Your task to perform on an android device: set the timer Image 0: 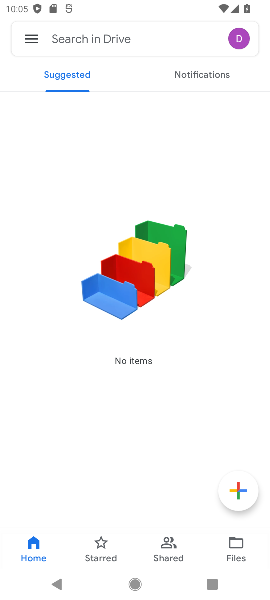
Step 0: press home button
Your task to perform on an android device: set the timer Image 1: 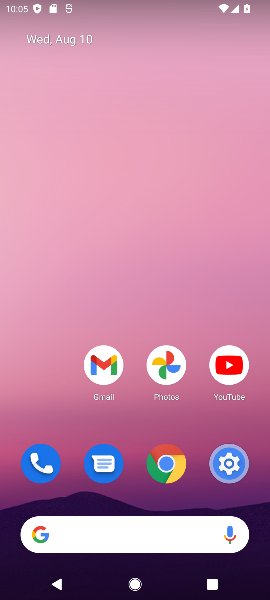
Step 1: drag from (24, 567) to (262, 88)
Your task to perform on an android device: set the timer Image 2: 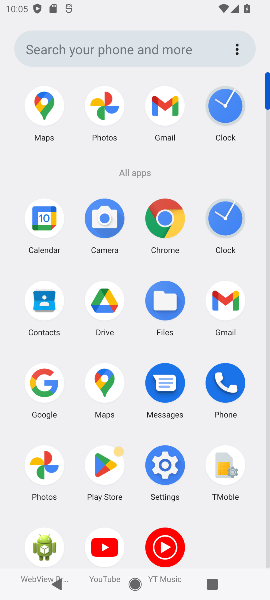
Step 2: click (220, 222)
Your task to perform on an android device: set the timer Image 3: 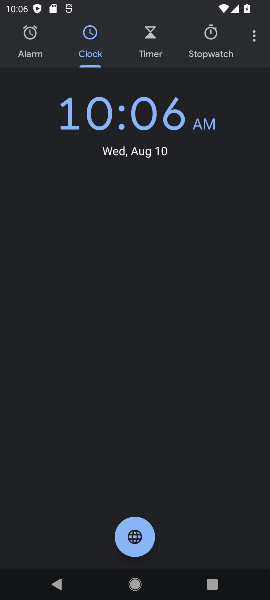
Step 3: click (137, 40)
Your task to perform on an android device: set the timer Image 4: 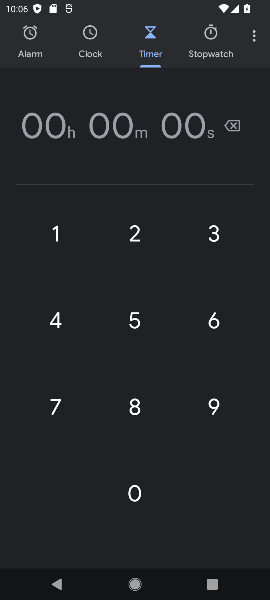
Step 4: click (126, 192)
Your task to perform on an android device: set the timer Image 5: 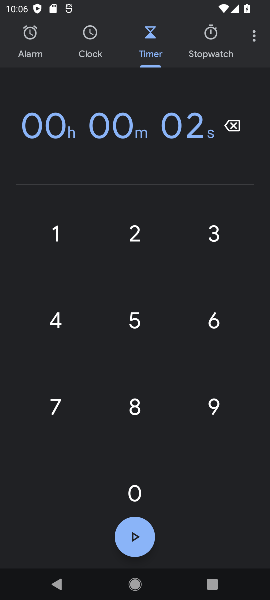
Step 5: click (126, 254)
Your task to perform on an android device: set the timer Image 6: 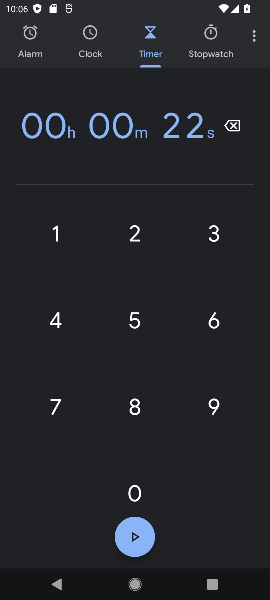
Step 6: click (43, 115)
Your task to perform on an android device: set the timer Image 7: 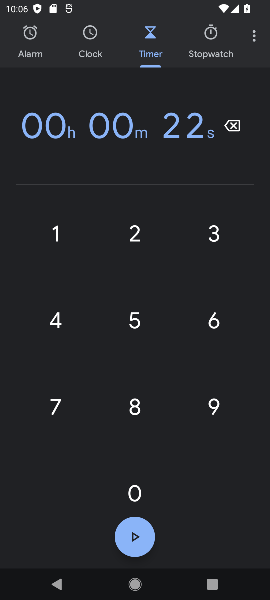
Step 7: click (57, 243)
Your task to perform on an android device: set the timer Image 8: 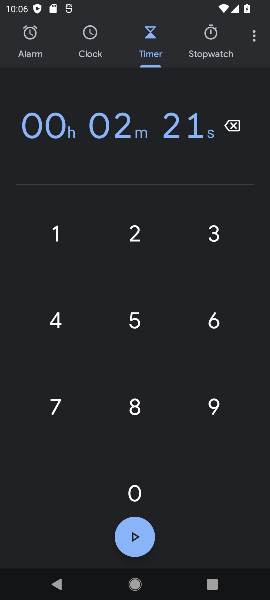
Step 8: click (133, 540)
Your task to perform on an android device: set the timer Image 9: 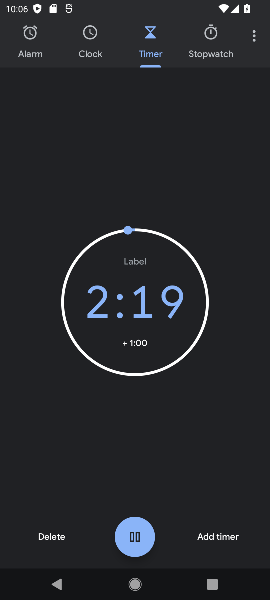
Step 9: click (133, 540)
Your task to perform on an android device: set the timer Image 10: 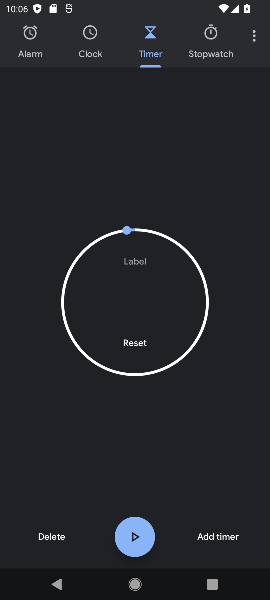
Step 10: task complete